Your task to perform on an android device: star an email in the gmail app Image 0: 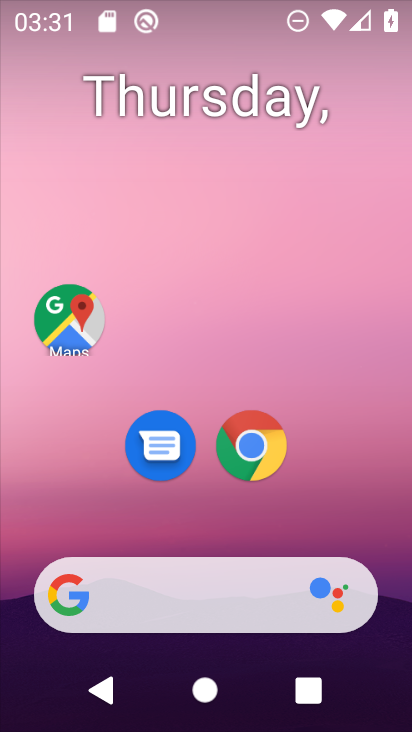
Step 0: drag from (349, 535) to (348, 11)
Your task to perform on an android device: star an email in the gmail app Image 1: 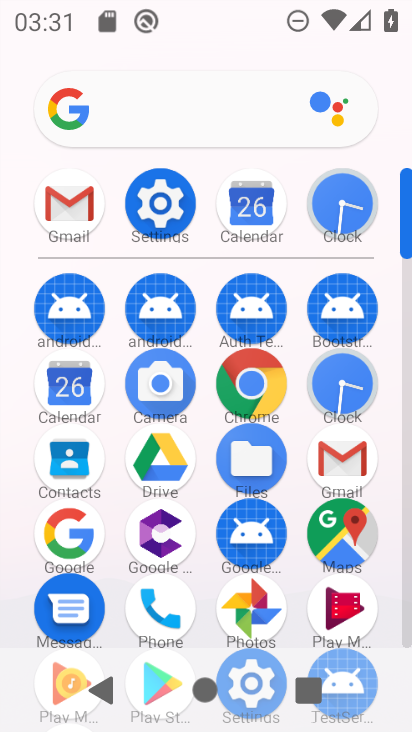
Step 1: click (58, 210)
Your task to perform on an android device: star an email in the gmail app Image 2: 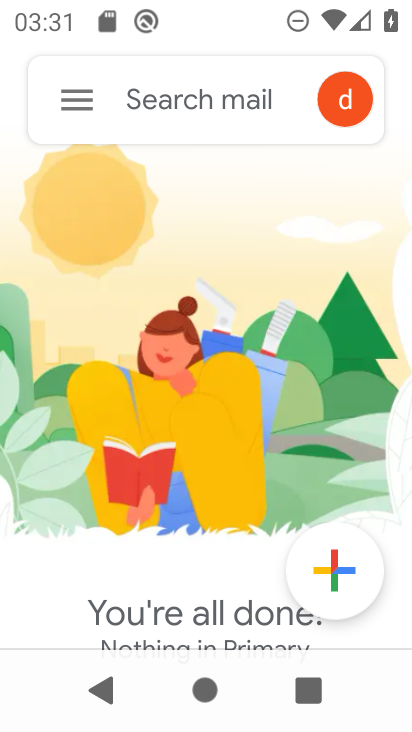
Step 2: click (72, 108)
Your task to perform on an android device: star an email in the gmail app Image 3: 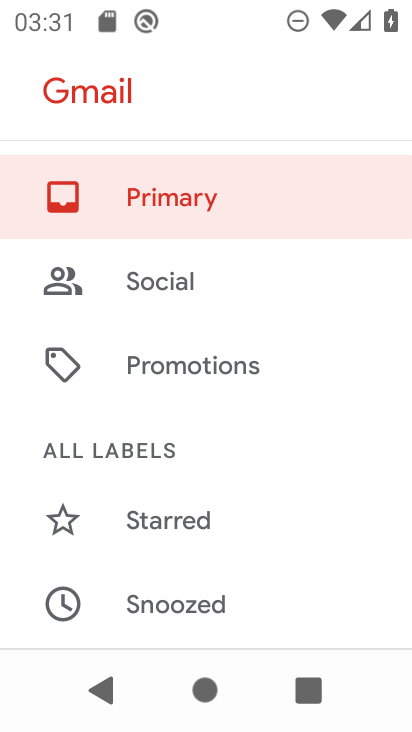
Step 3: drag from (196, 509) to (193, 173)
Your task to perform on an android device: star an email in the gmail app Image 4: 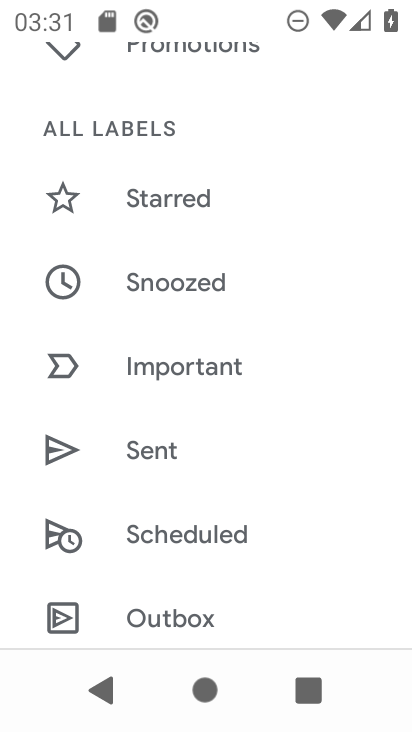
Step 4: drag from (205, 551) to (195, 209)
Your task to perform on an android device: star an email in the gmail app Image 5: 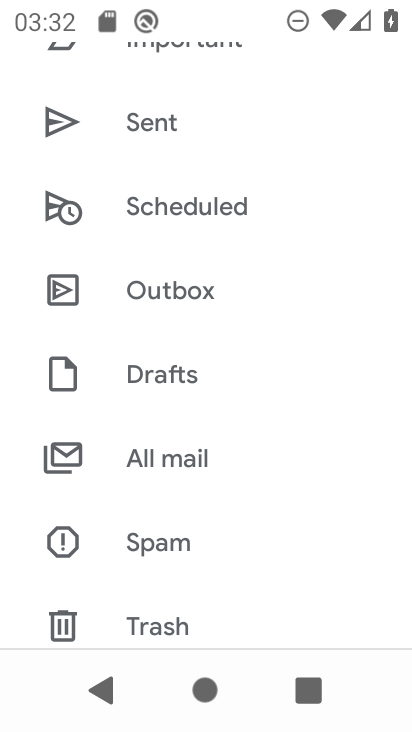
Step 5: click (153, 462)
Your task to perform on an android device: star an email in the gmail app Image 6: 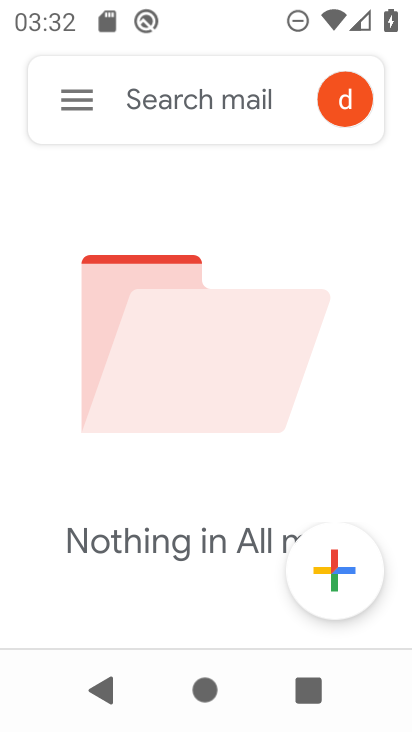
Step 6: task complete